Your task to perform on an android device: toggle sleep mode Image 0: 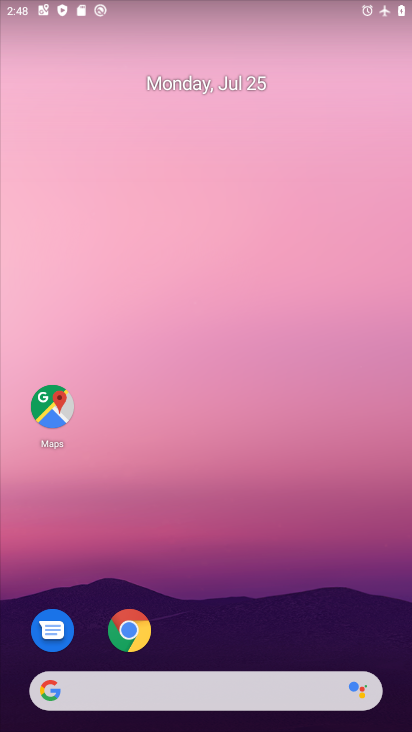
Step 0: drag from (262, 666) to (334, 162)
Your task to perform on an android device: toggle sleep mode Image 1: 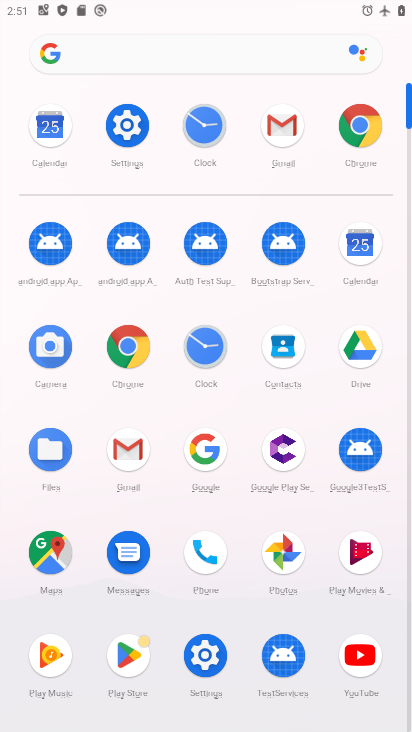
Step 1: click (207, 138)
Your task to perform on an android device: toggle sleep mode Image 2: 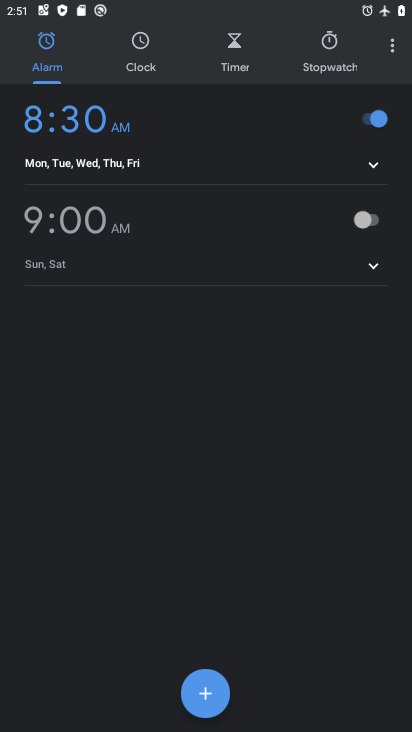
Step 2: task complete